Your task to perform on an android device: stop showing notifications on the lock screen Image 0: 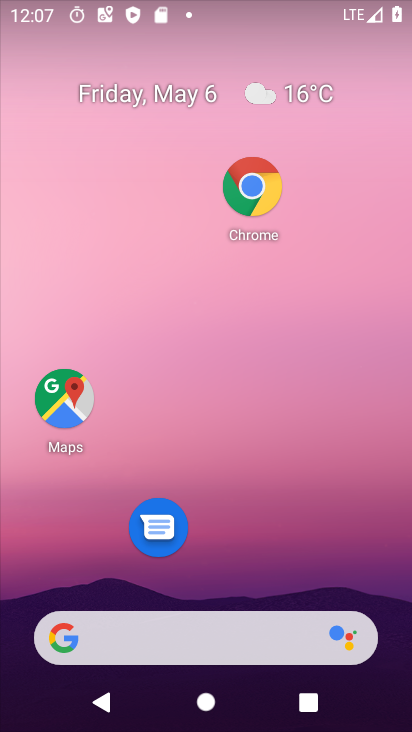
Step 0: drag from (330, 124) to (377, 21)
Your task to perform on an android device: stop showing notifications on the lock screen Image 1: 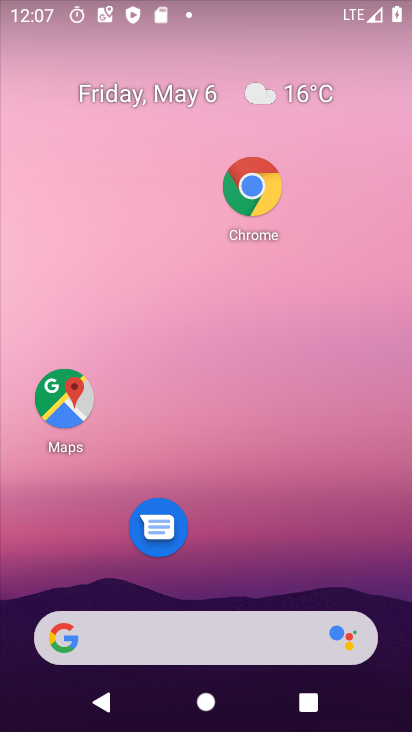
Step 1: drag from (225, 552) to (254, 21)
Your task to perform on an android device: stop showing notifications on the lock screen Image 2: 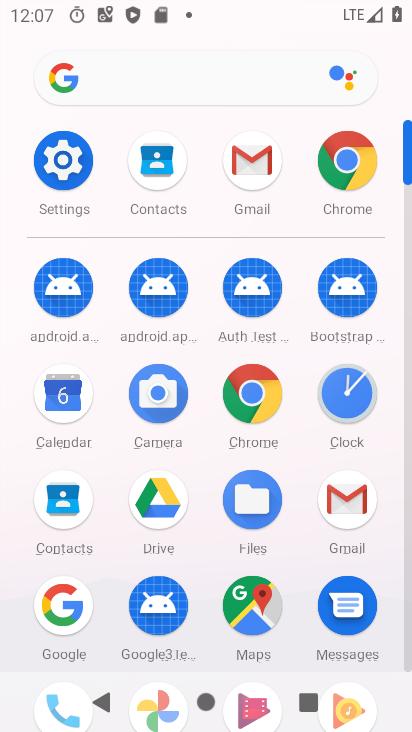
Step 2: click (79, 169)
Your task to perform on an android device: stop showing notifications on the lock screen Image 3: 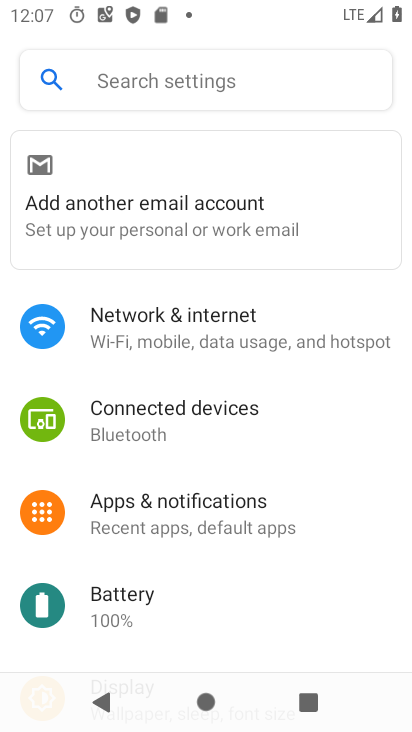
Step 3: click (189, 519)
Your task to perform on an android device: stop showing notifications on the lock screen Image 4: 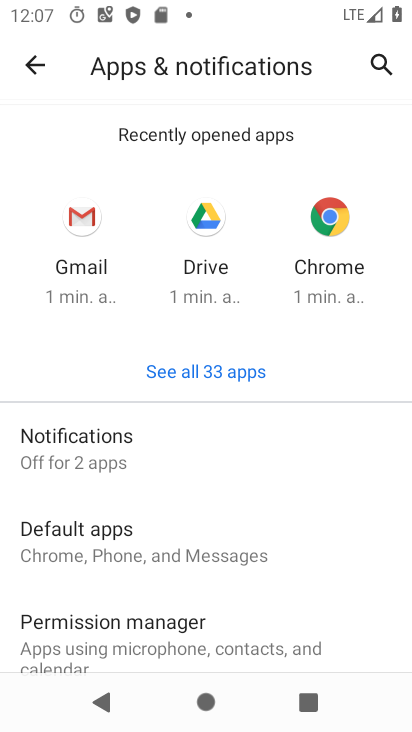
Step 4: drag from (121, 498) to (182, 276)
Your task to perform on an android device: stop showing notifications on the lock screen Image 5: 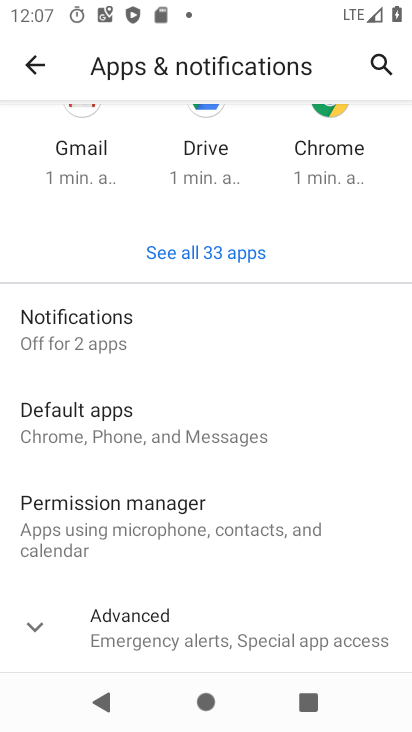
Step 5: click (89, 349)
Your task to perform on an android device: stop showing notifications on the lock screen Image 6: 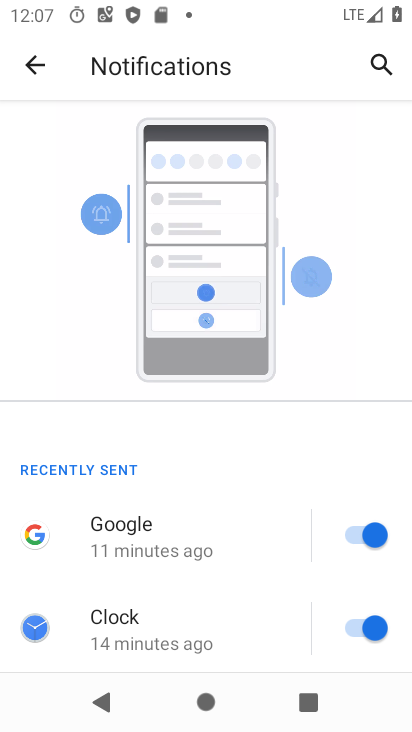
Step 6: drag from (168, 554) to (285, 246)
Your task to perform on an android device: stop showing notifications on the lock screen Image 7: 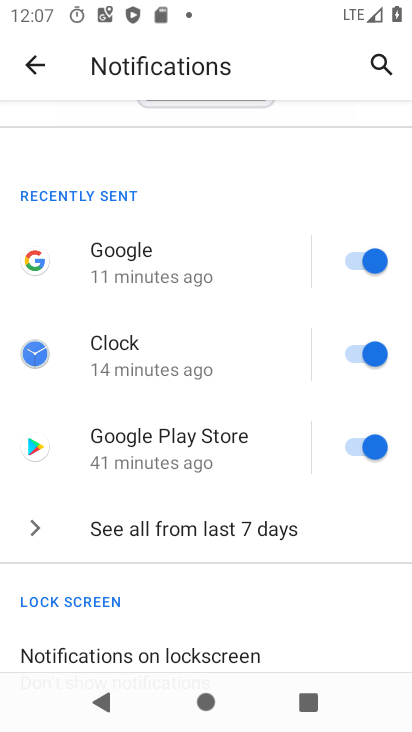
Step 7: drag from (202, 628) to (241, 372)
Your task to perform on an android device: stop showing notifications on the lock screen Image 8: 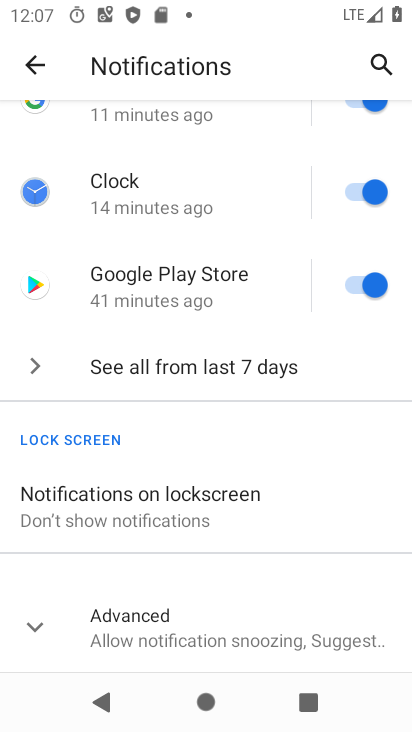
Step 8: click (176, 509)
Your task to perform on an android device: stop showing notifications on the lock screen Image 9: 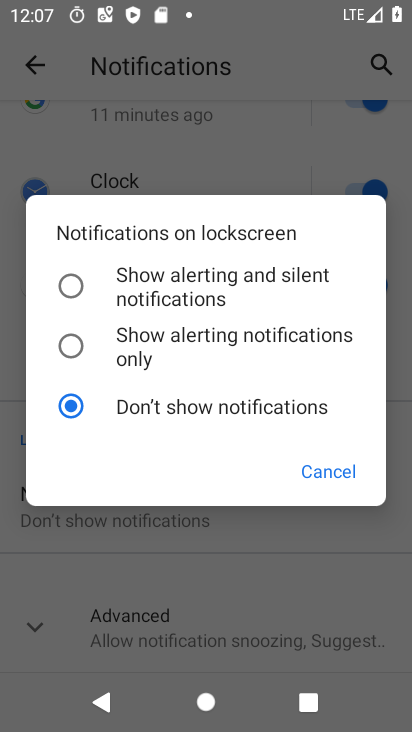
Step 9: task complete